Your task to perform on an android device: turn on location history Image 0: 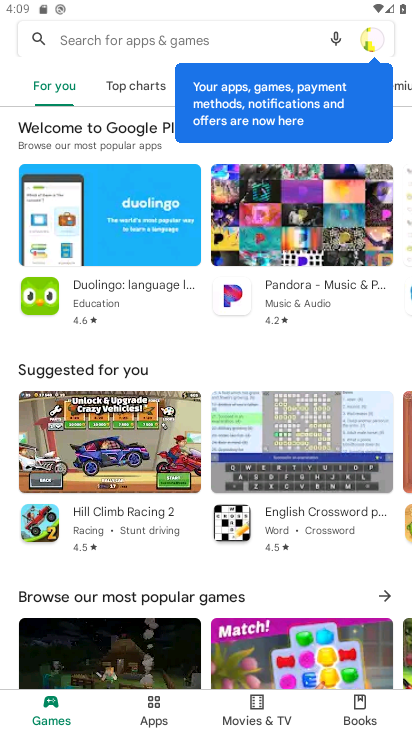
Step 0: press back button
Your task to perform on an android device: turn on location history Image 1: 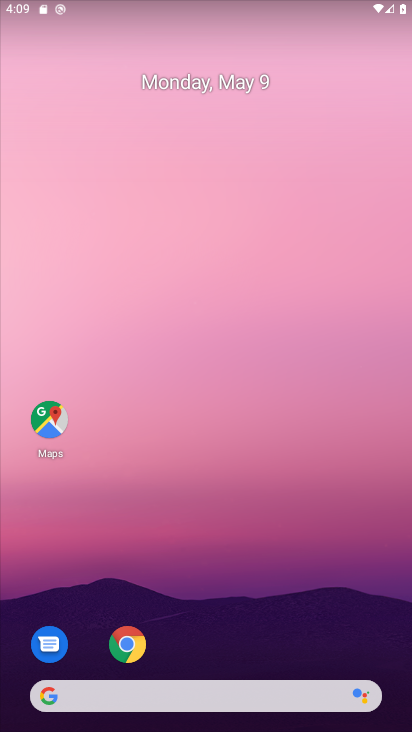
Step 1: drag from (212, 557) to (235, 25)
Your task to perform on an android device: turn on location history Image 2: 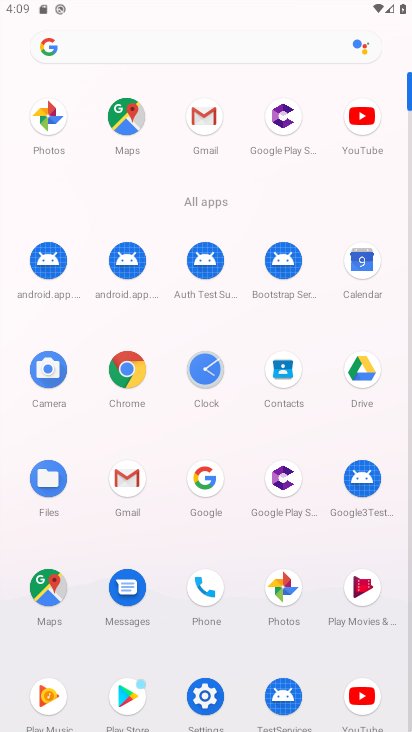
Step 2: click (203, 698)
Your task to perform on an android device: turn on location history Image 3: 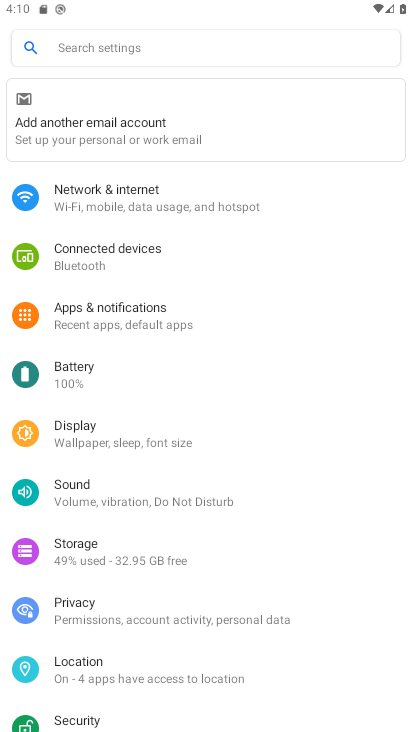
Step 3: drag from (130, 563) to (190, 464)
Your task to perform on an android device: turn on location history Image 4: 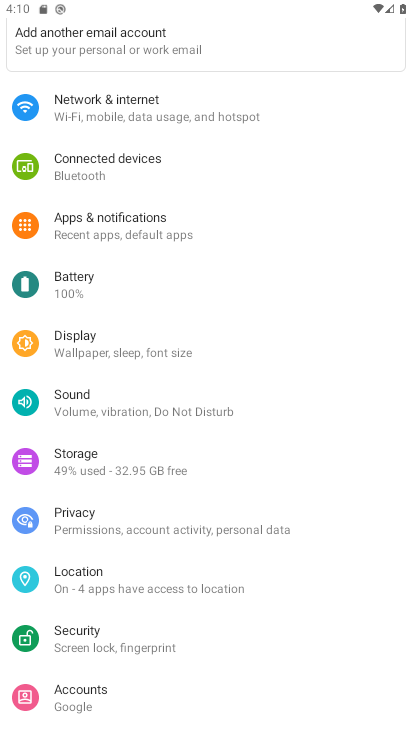
Step 4: click (74, 572)
Your task to perform on an android device: turn on location history Image 5: 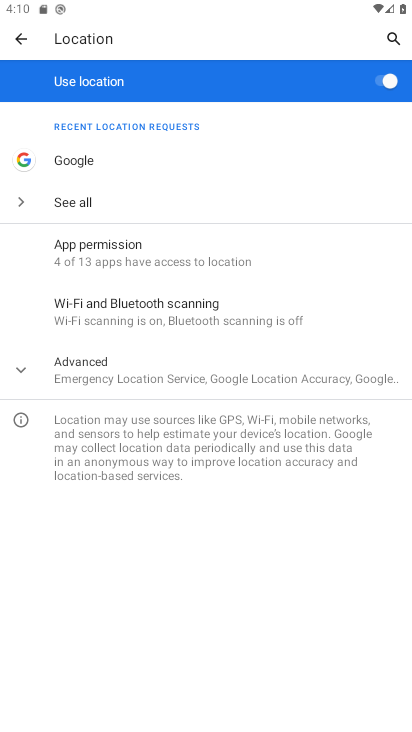
Step 5: click (103, 375)
Your task to perform on an android device: turn on location history Image 6: 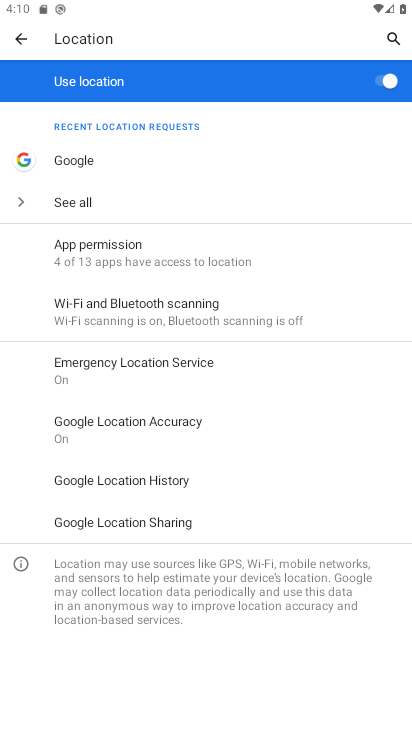
Step 6: click (164, 483)
Your task to perform on an android device: turn on location history Image 7: 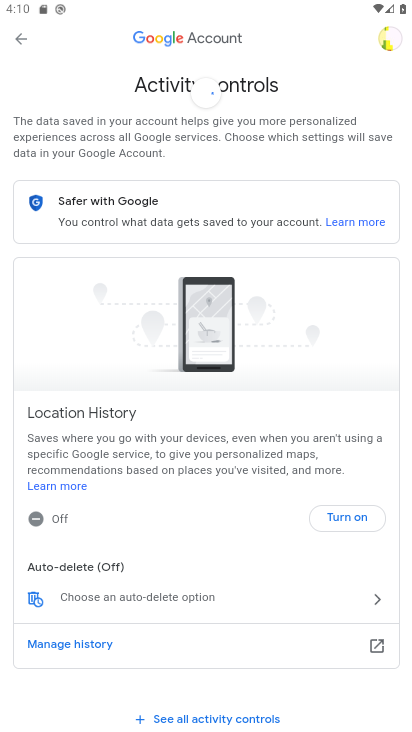
Step 7: click (357, 512)
Your task to perform on an android device: turn on location history Image 8: 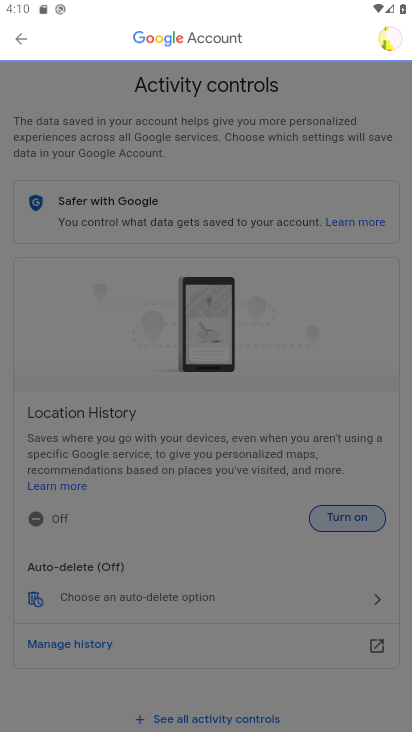
Step 8: click (341, 518)
Your task to perform on an android device: turn on location history Image 9: 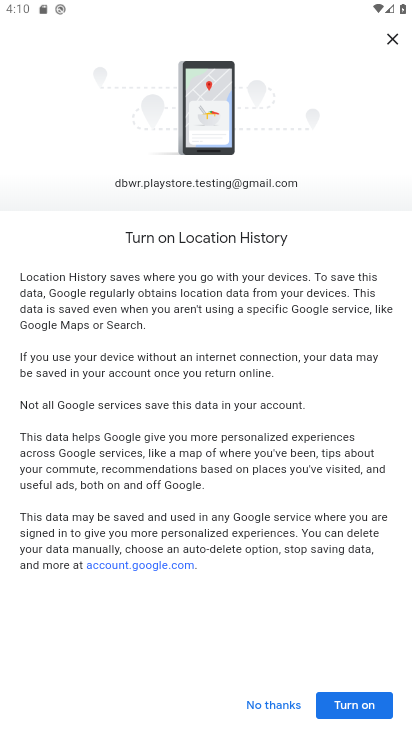
Step 9: click (366, 704)
Your task to perform on an android device: turn on location history Image 10: 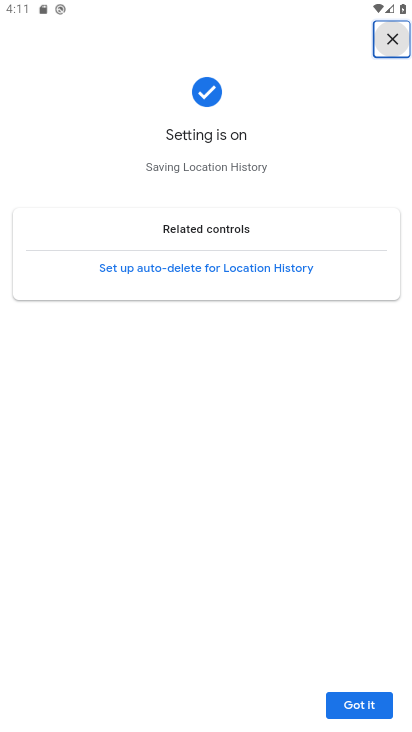
Step 10: task complete